Your task to perform on an android device: toggle location history Image 0: 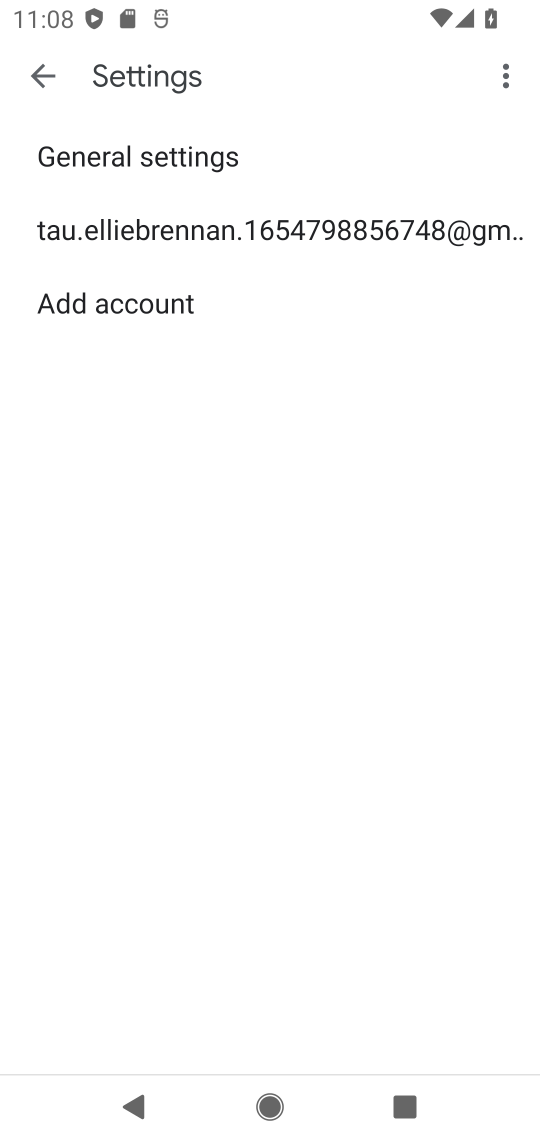
Step 0: press home button
Your task to perform on an android device: toggle location history Image 1: 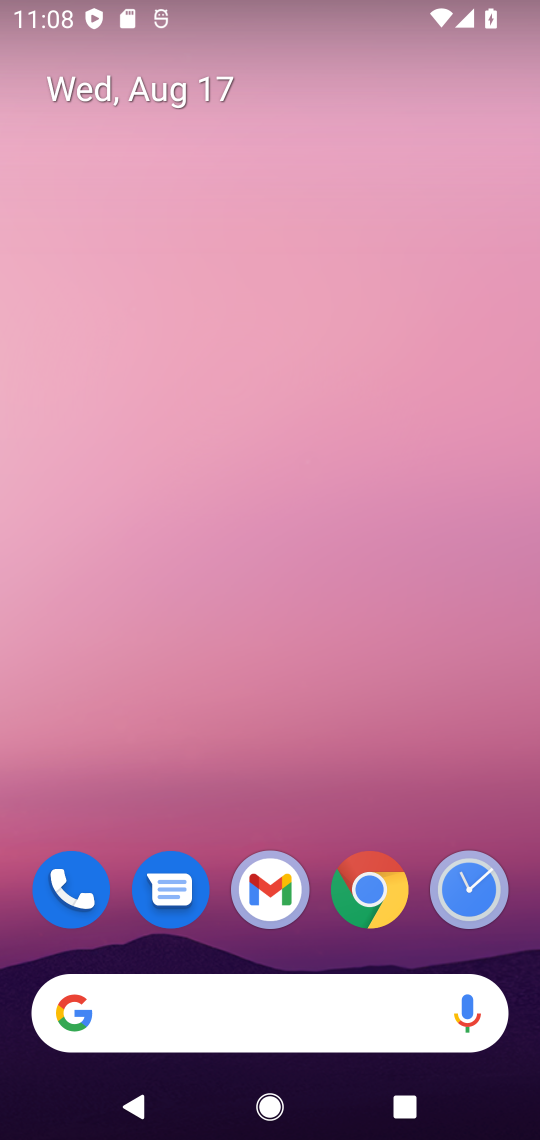
Step 1: drag from (309, 806) to (394, 0)
Your task to perform on an android device: toggle location history Image 2: 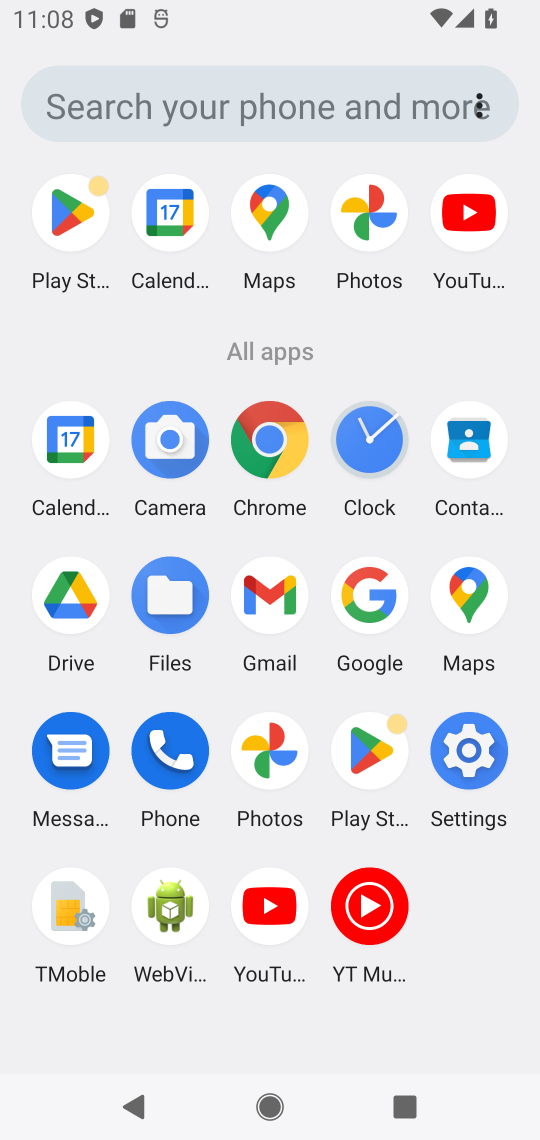
Step 2: click (459, 742)
Your task to perform on an android device: toggle location history Image 3: 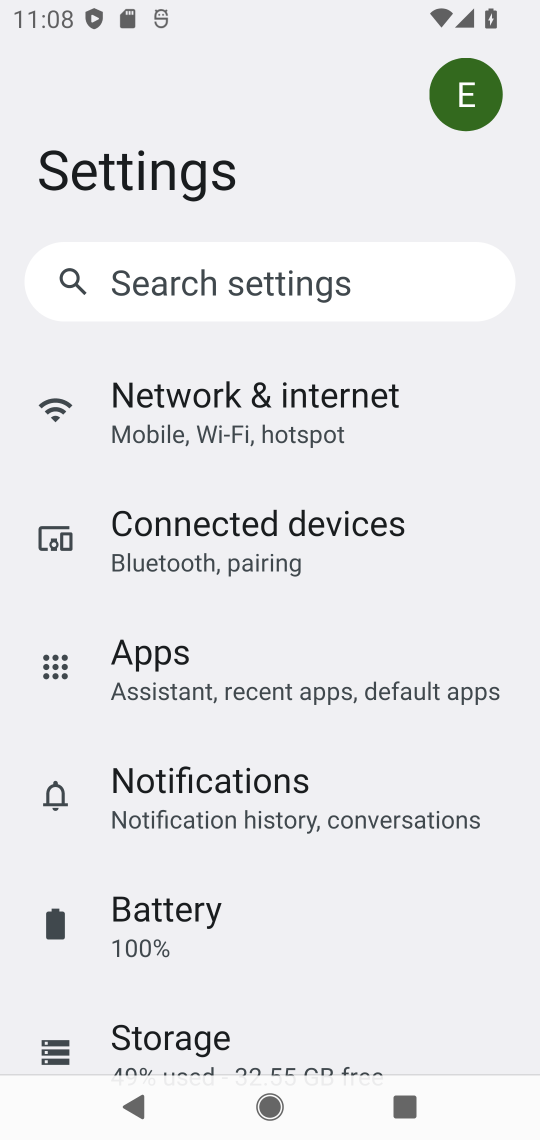
Step 3: drag from (375, 929) to (448, 53)
Your task to perform on an android device: toggle location history Image 4: 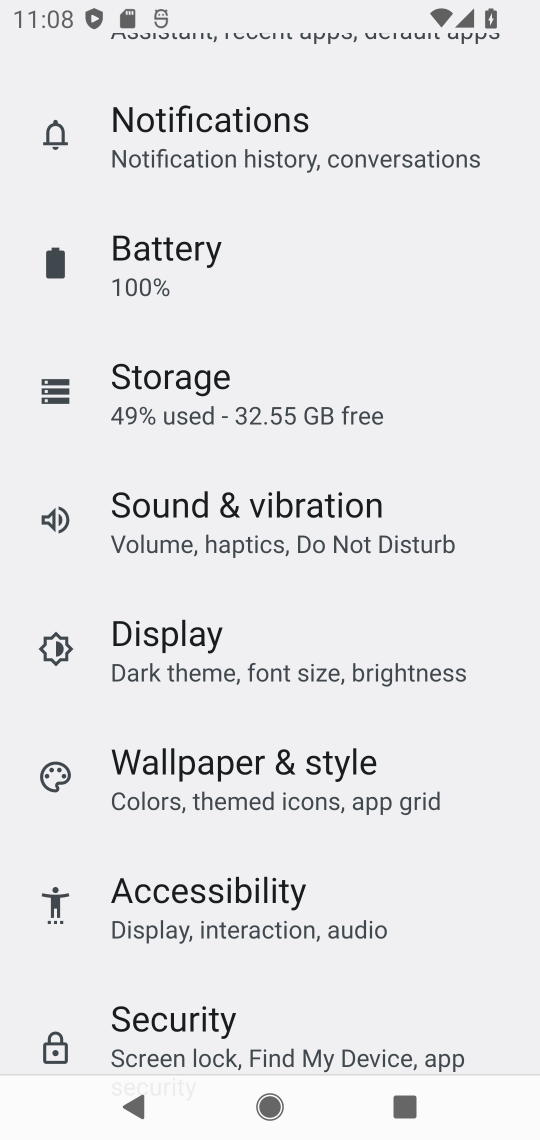
Step 4: drag from (290, 784) to (329, 125)
Your task to perform on an android device: toggle location history Image 5: 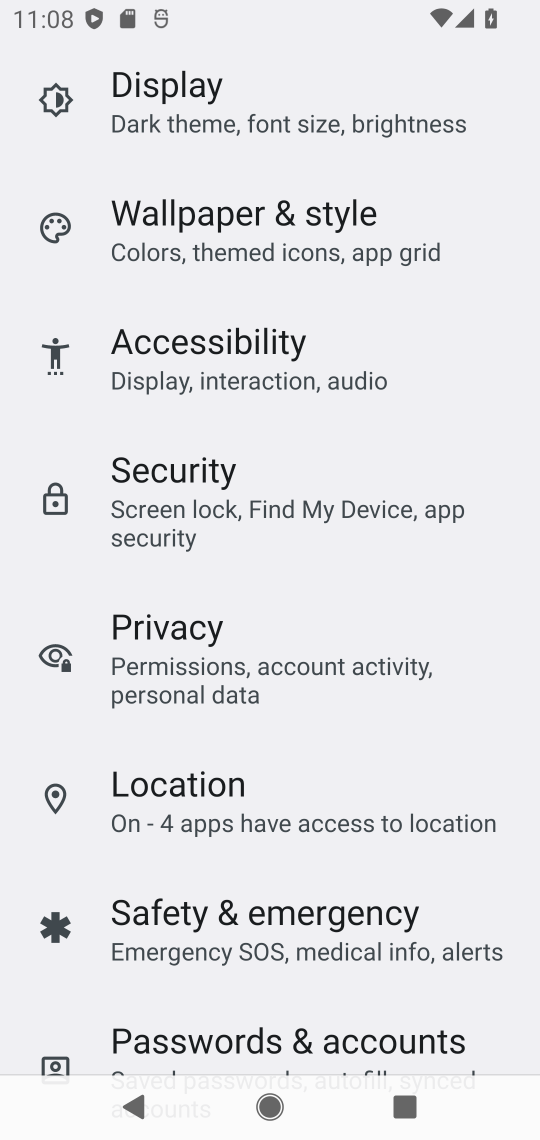
Step 5: click (257, 806)
Your task to perform on an android device: toggle location history Image 6: 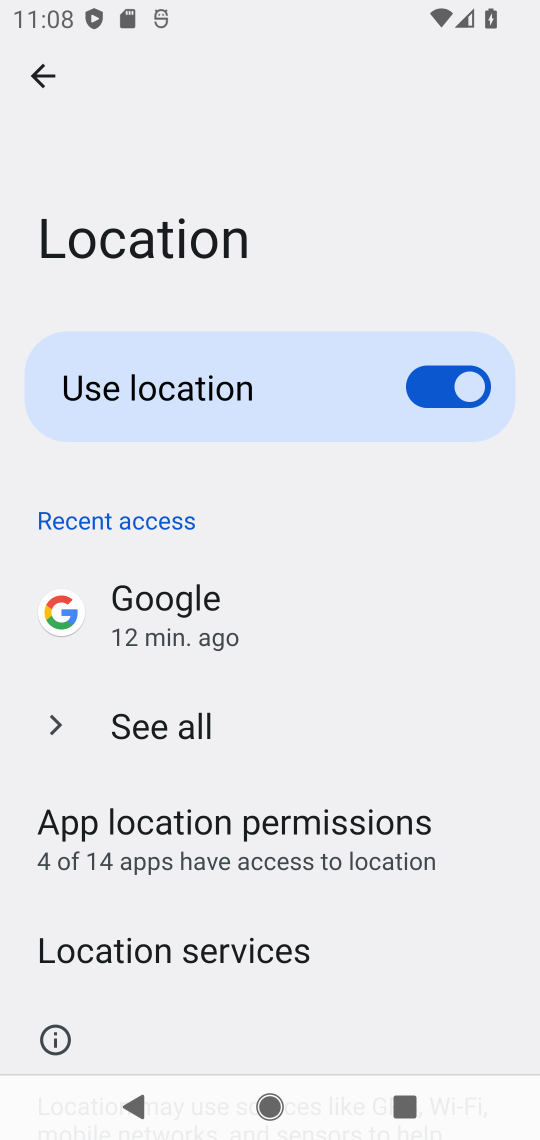
Step 6: click (293, 938)
Your task to perform on an android device: toggle location history Image 7: 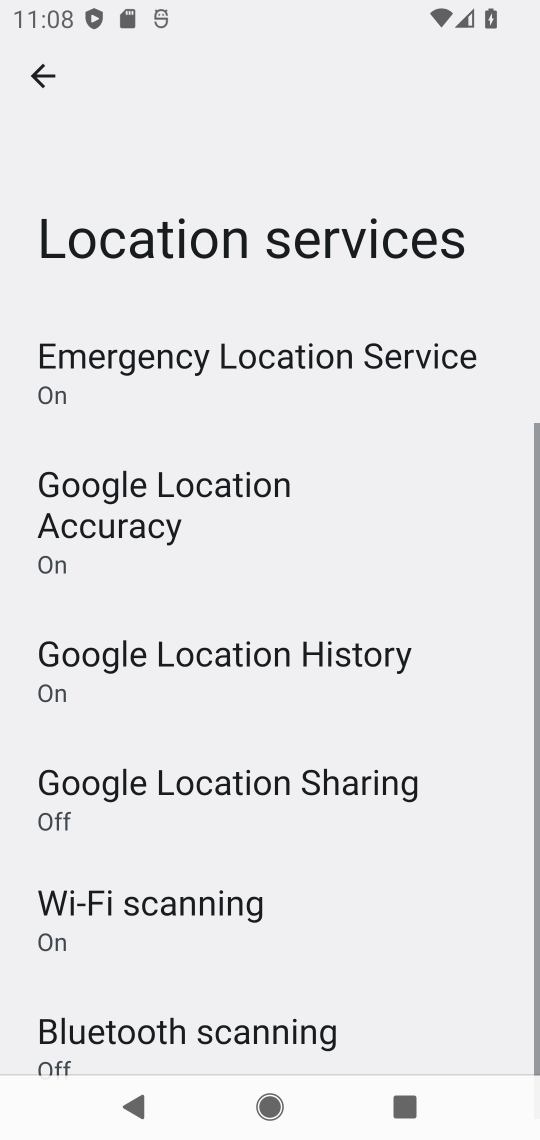
Step 7: drag from (316, 720) to (382, 0)
Your task to perform on an android device: toggle location history Image 8: 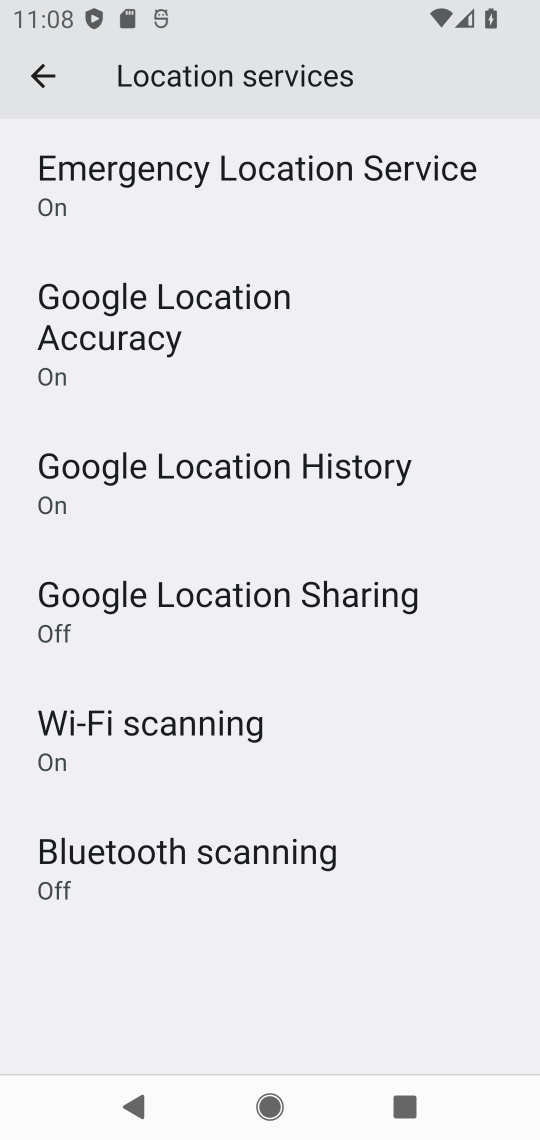
Step 8: click (262, 463)
Your task to perform on an android device: toggle location history Image 9: 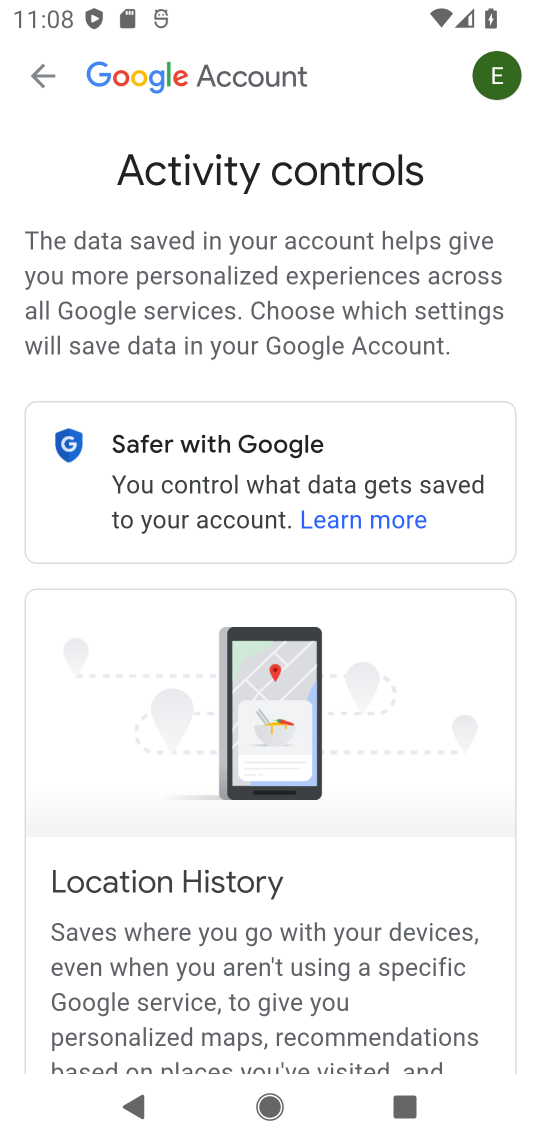
Step 9: drag from (329, 919) to (347, 112)
Your task to perform on an android device: toggle location history Image 10: 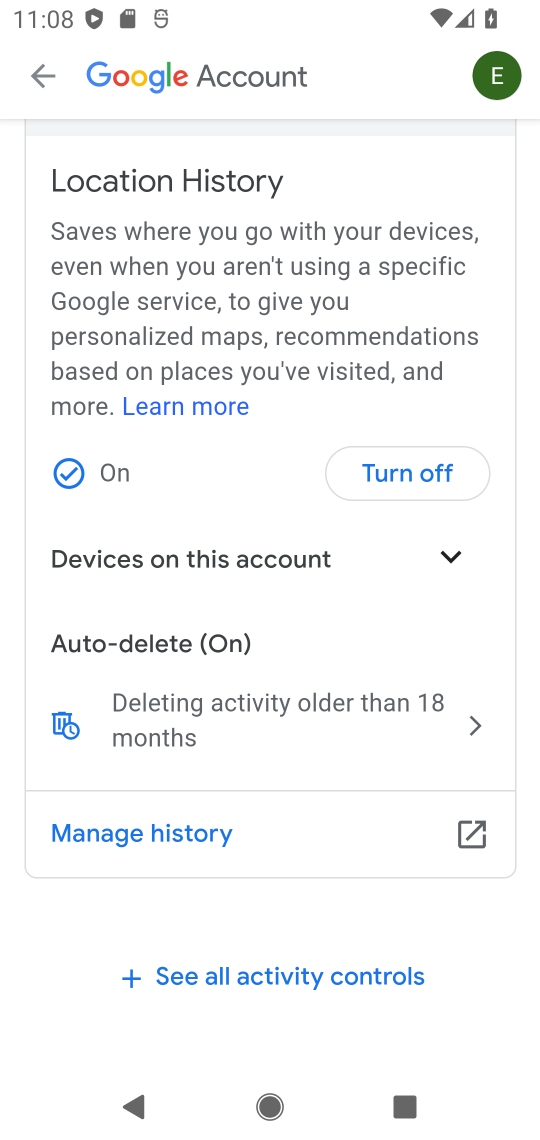
Step 10: click (391, 463)
Your task to perform on an android device: toggle location history Image 11: 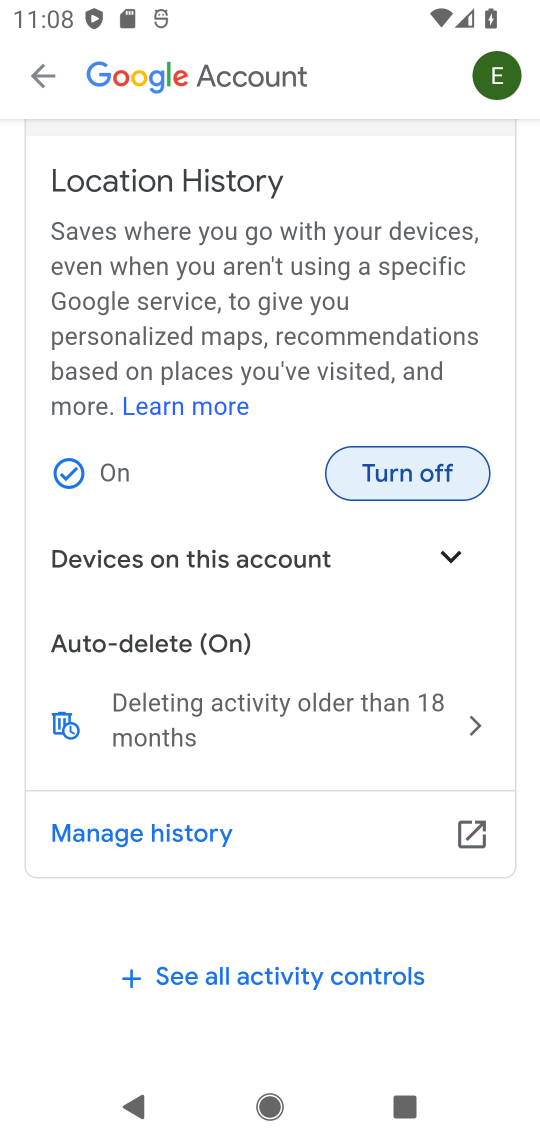
Step 11: click (391, 461)
Your task to perform on an android device: toggle location history Image 12: 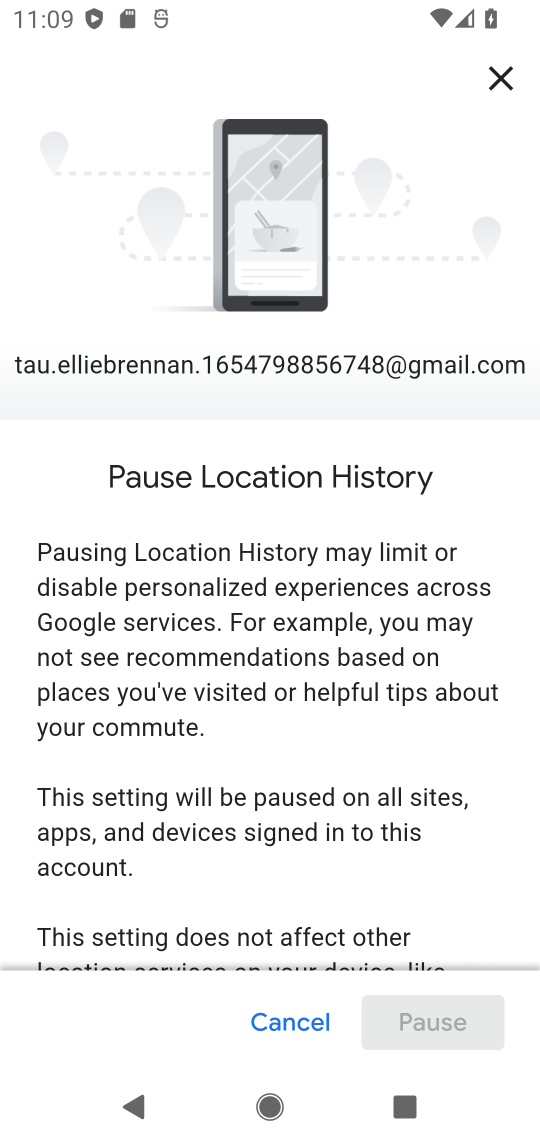
Step 12: drag from (354, 930) to (469, 0)
Your task to perform on an android device: toggle location history Image 13: 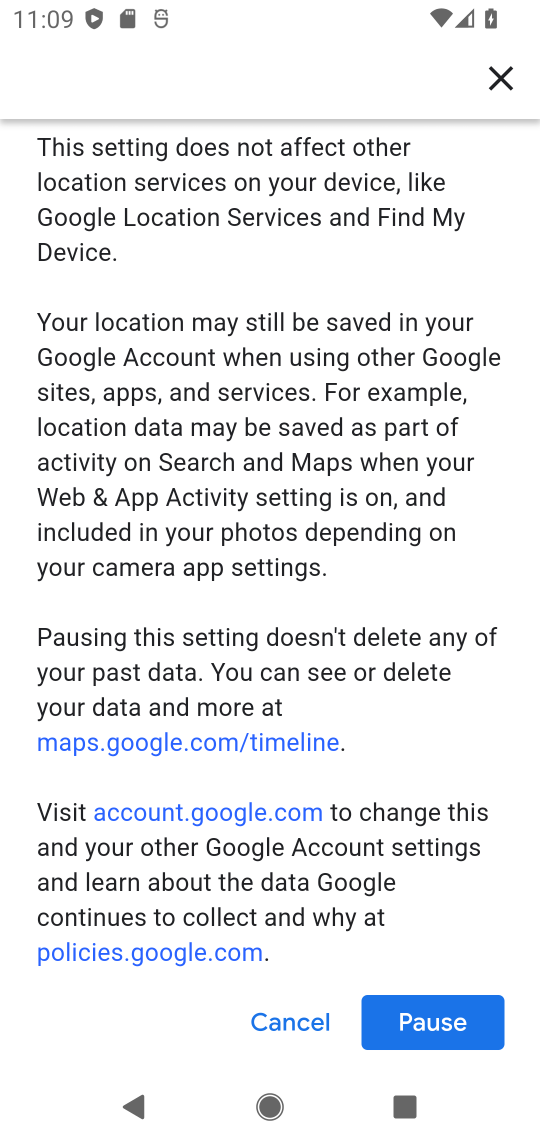
Step 13: click (444, 1022)
Your task to perform on an android device: toggle location history Image 14: 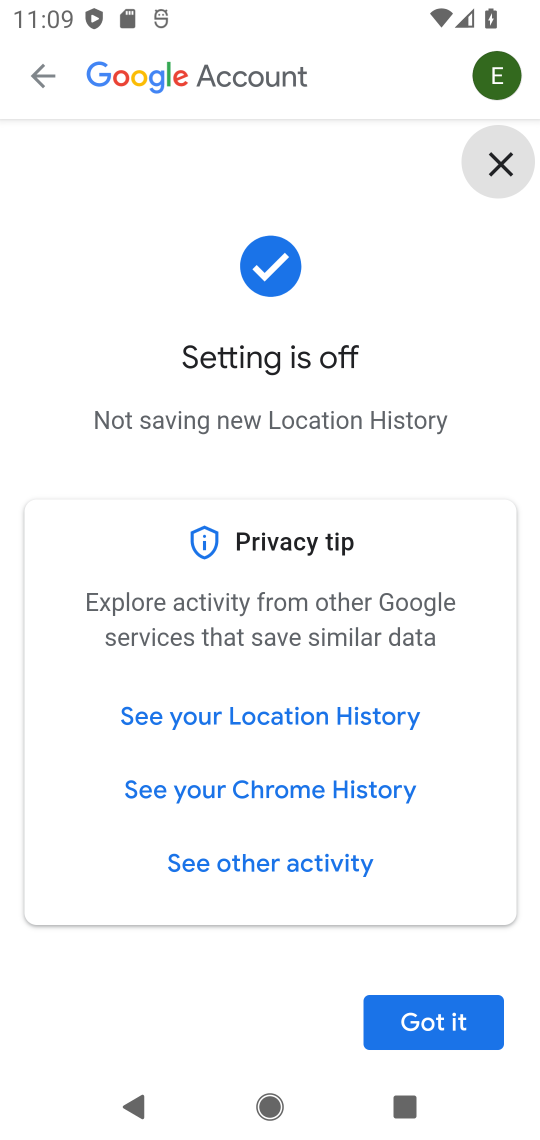
Step 14: click (444, 1020)
Your task to perform on an android device: toggle location history Image 15: 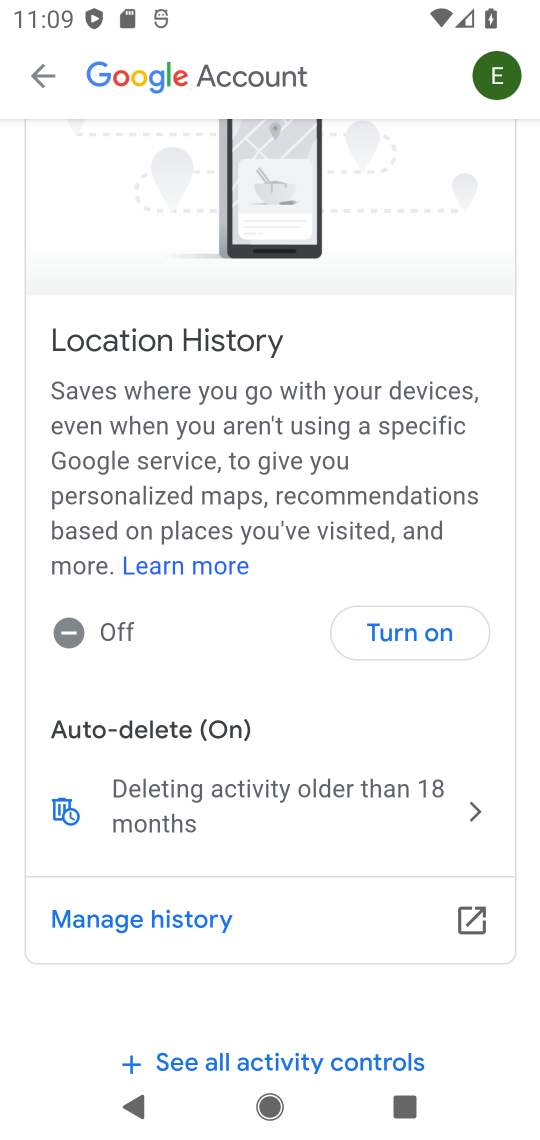
Step 15: task complete